Your task to perform on an android device: Open internet settings Image 0: 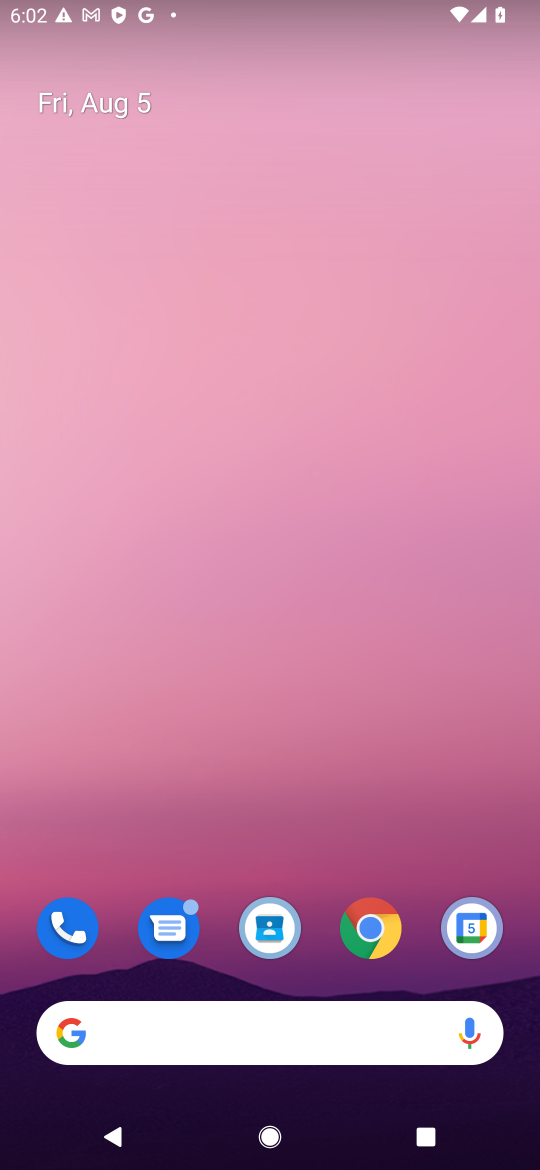
Step 0: drag from (272, 968) to (329, 30)
Your task to perform on an android device: Open internet settings Image 1: 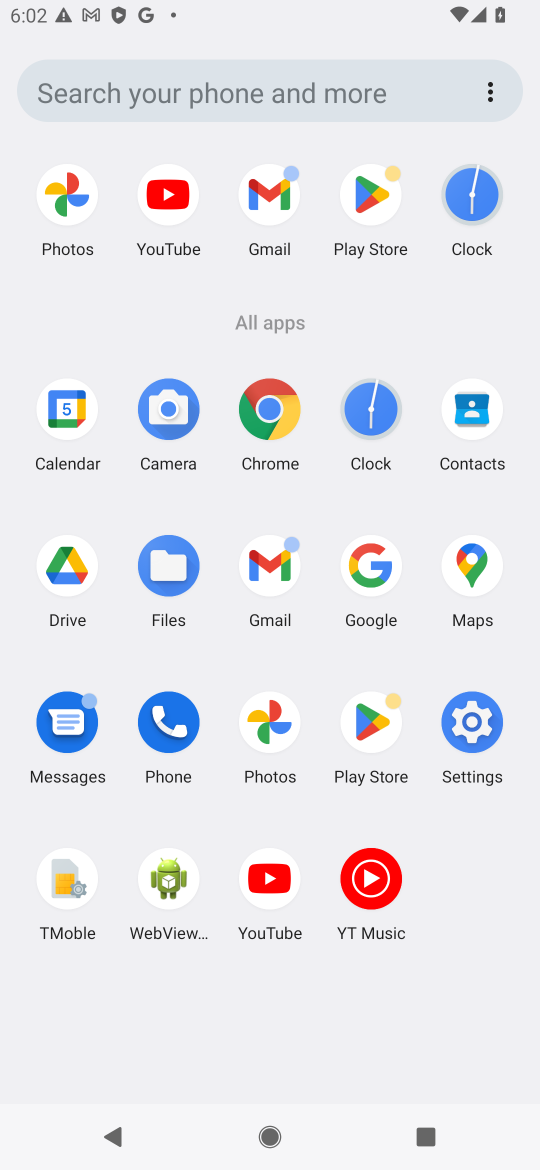
Step 1: click (448, 721)
Your task to perform on an android device: Open internet settings Image 2: 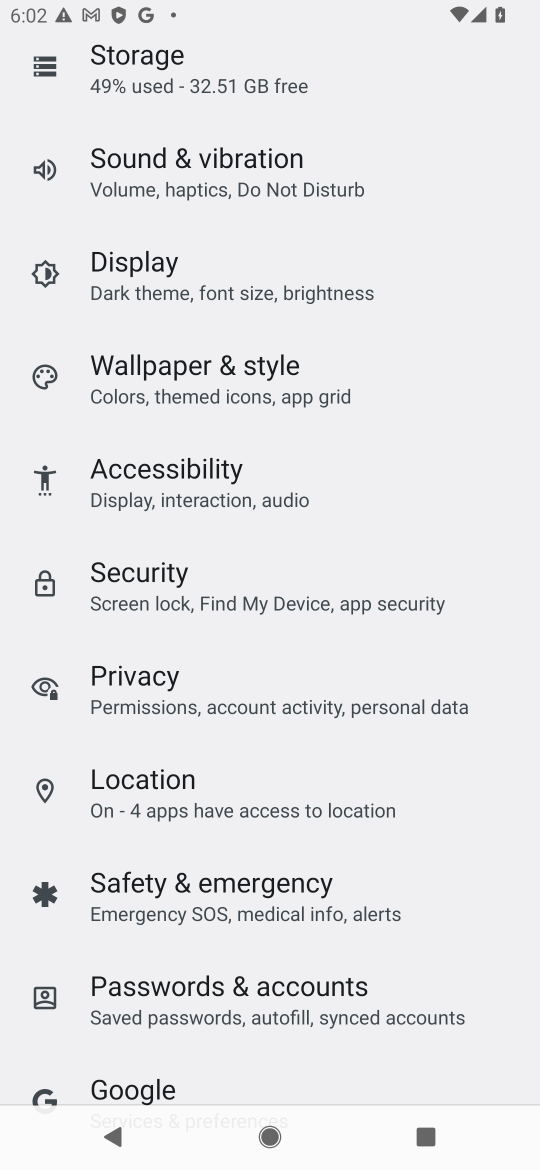
Step 2: drag from (204, 232) to (252, 685)
Your task to perform on an android device: Open internet settings Image 3: 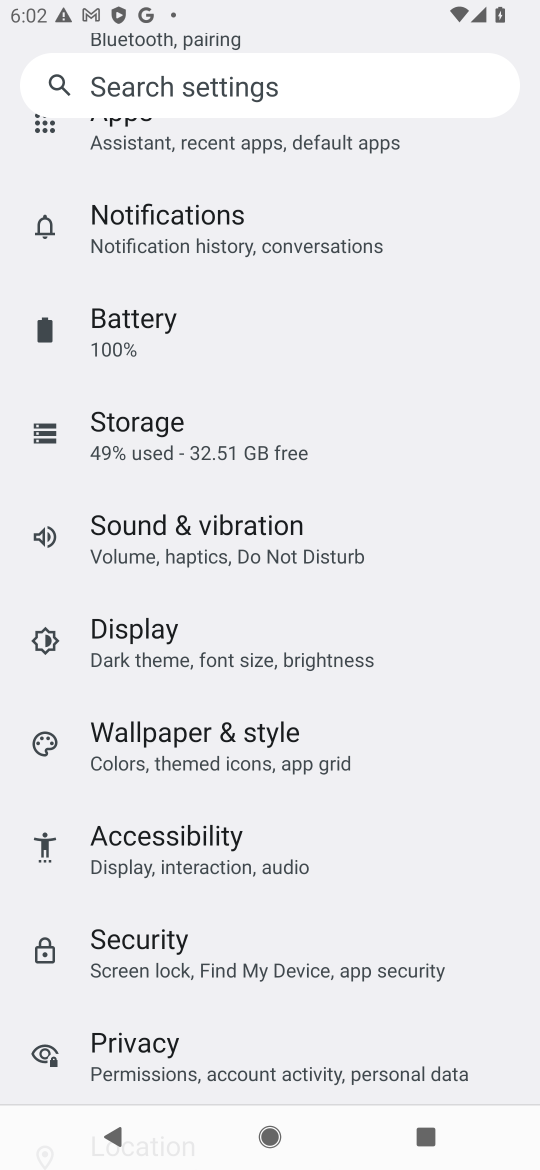
Step 3: drag from (181, 202) to (208, 709)
Your task to perform on an android device: Open internet settings Image 4: 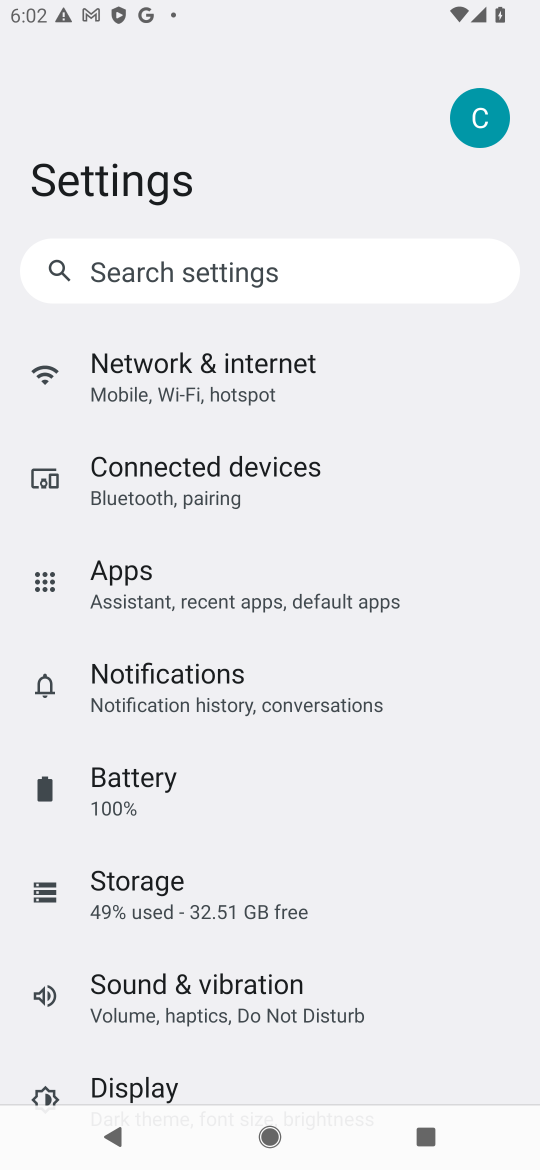
Step 4: click (205, 354)
Your task to perform on an android device: Open internet settings Image 5: 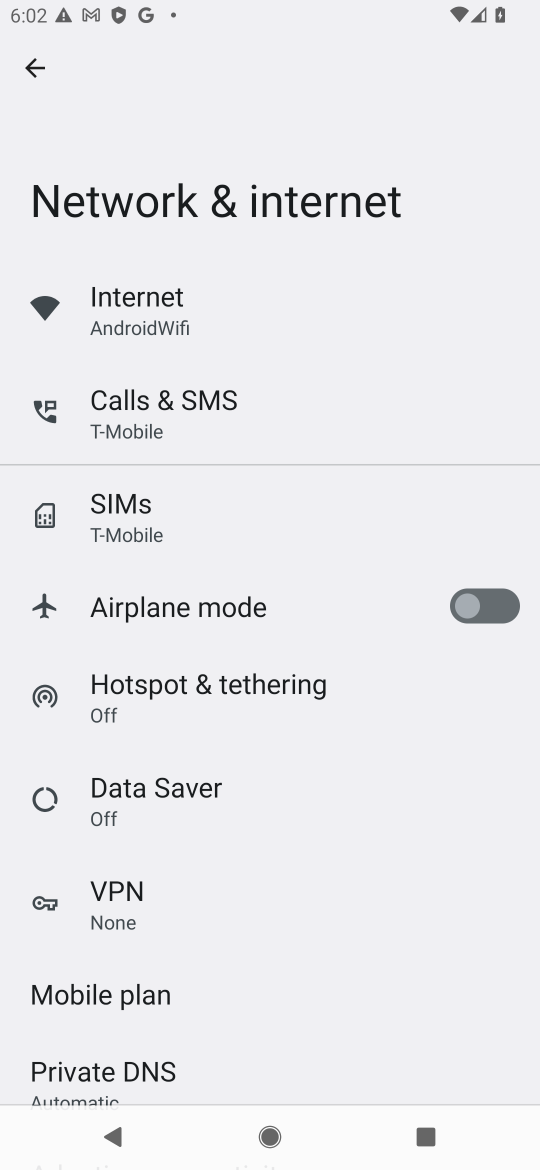
Step 5: click (198, 320)
Your task to perform on an android device: Open internet settings Image 6: 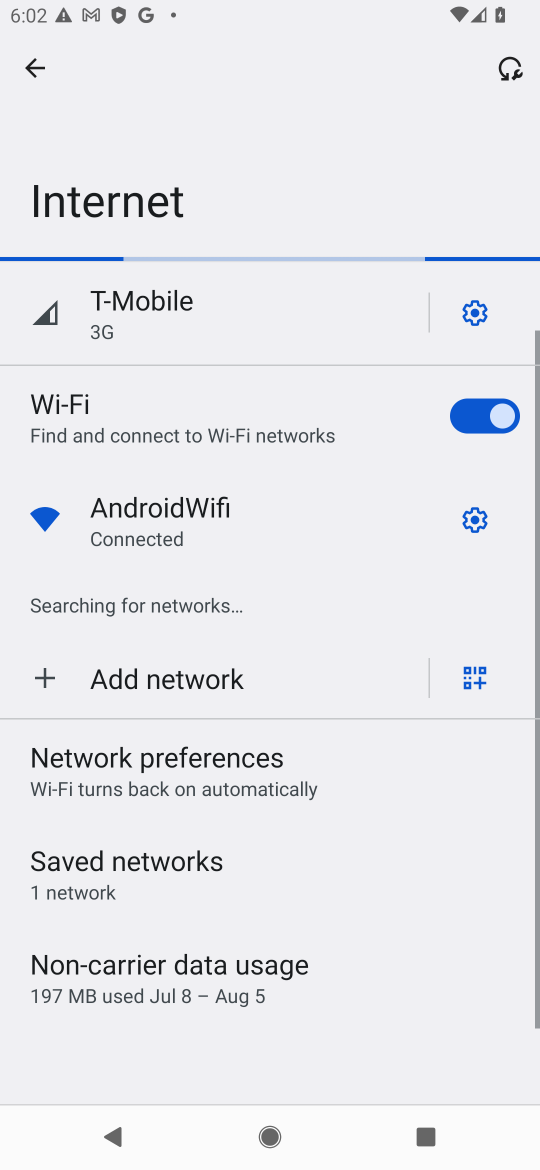
Step 6: task complete